Your task to perform on an android device: Open Google Image 0: 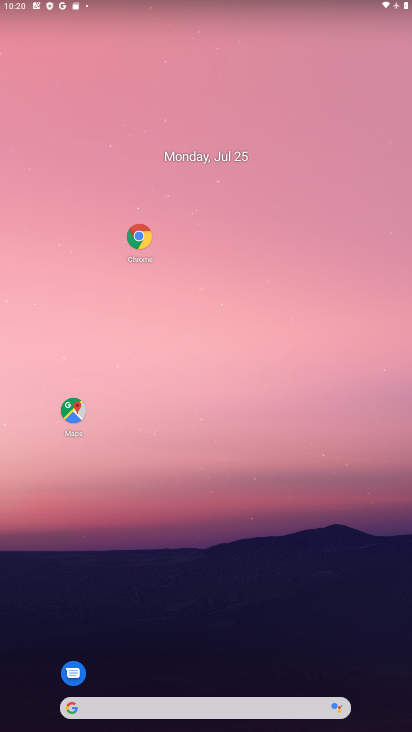
Step 0: click (231, 713)
Your task to perform on an android device: Open Google Image 1: 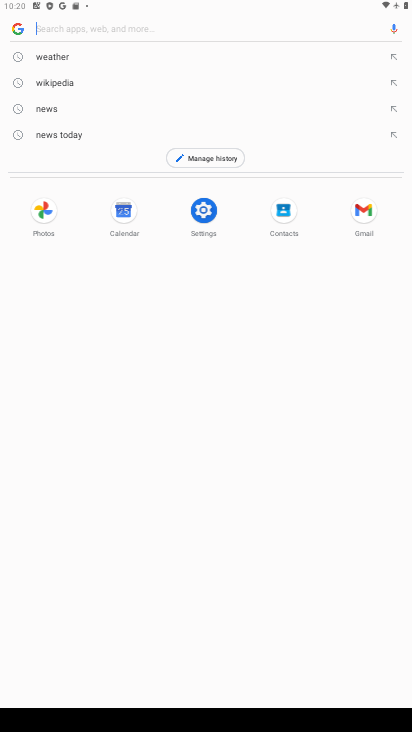
Step 1: type "GOOGLE.COM"
Your task to perform on an android device: Open Google Image 2: 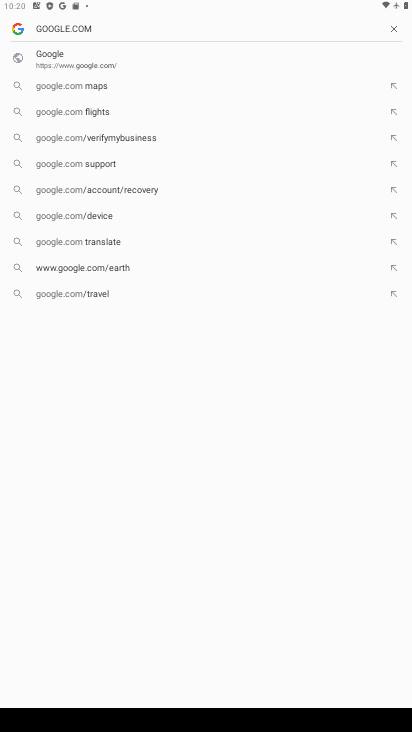
Step 2: click (69, 72)
Your task to perform on an android device: Open Google Image 3: 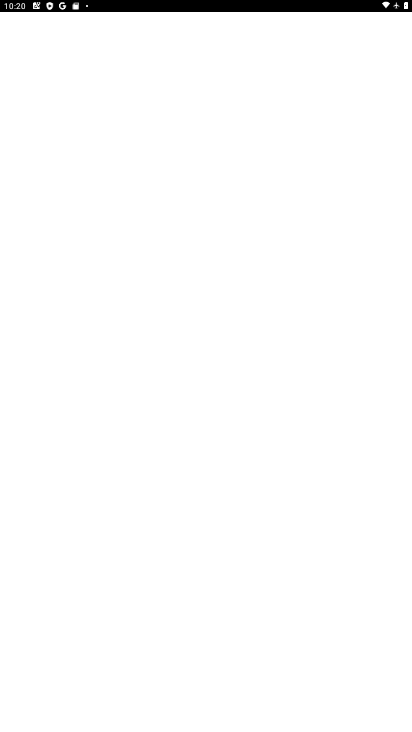
Step 3: task complete